Your task to perform on an android device: Search for a nice rug on Crate & Barrel Image 0: 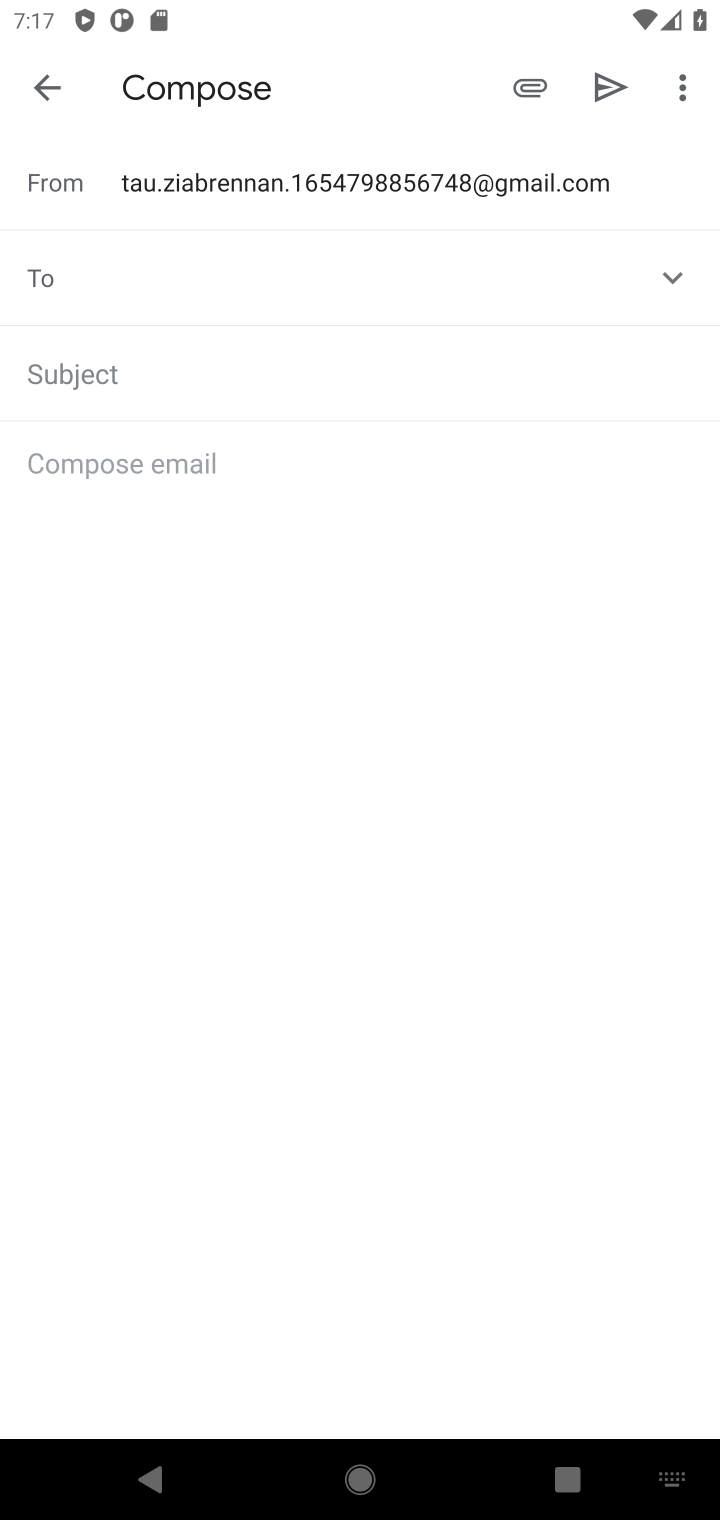
Step 0: press home button
Your task to perform on an android device: Search for a nice rug on Crate & Barrel Image 1: 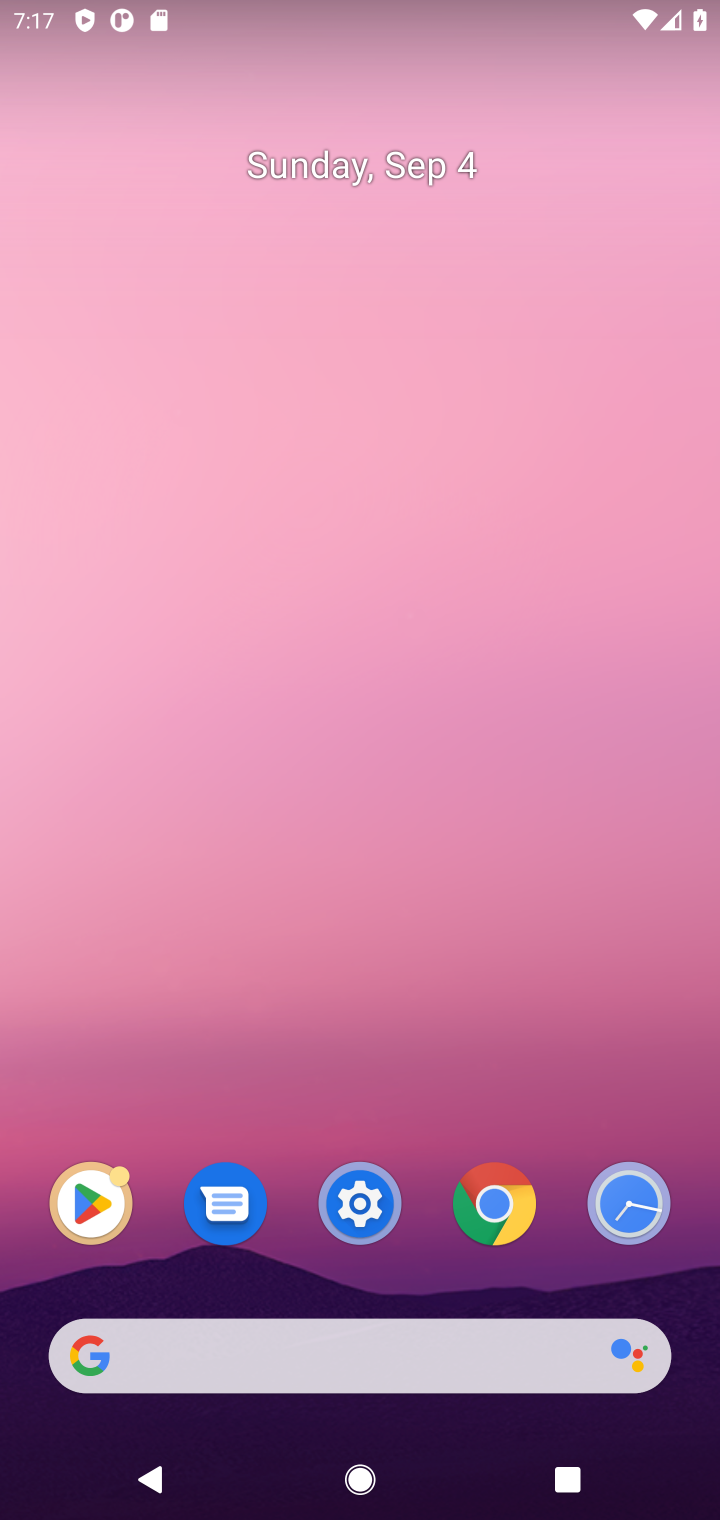
Step 1: click (97, 1348)
Your task to perform on an android device: Search for a nice rug on Crate & Barrel Image 2: 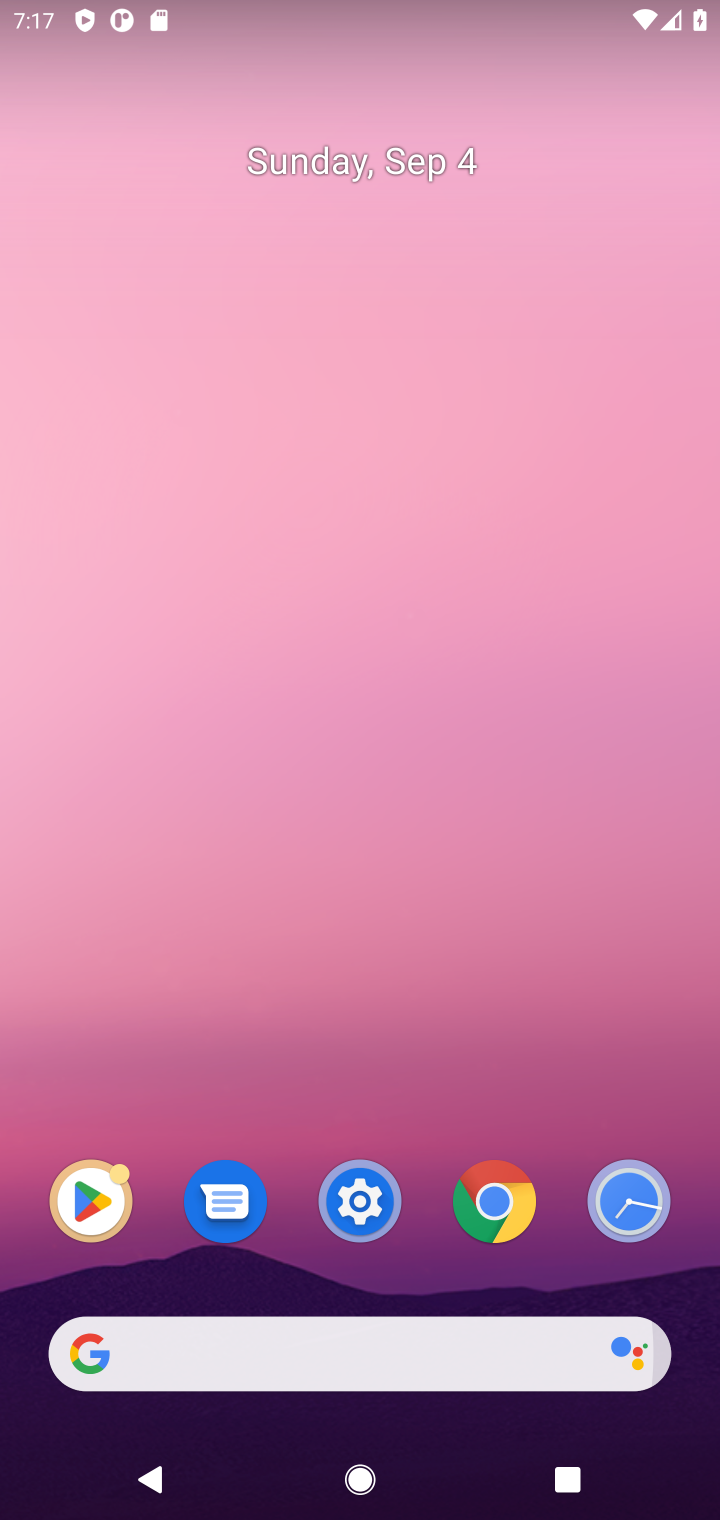
Step 2: click (89, 1357)
Your task to perform on an android device: Search for a nice rug on Crate & Barrel Image 3: 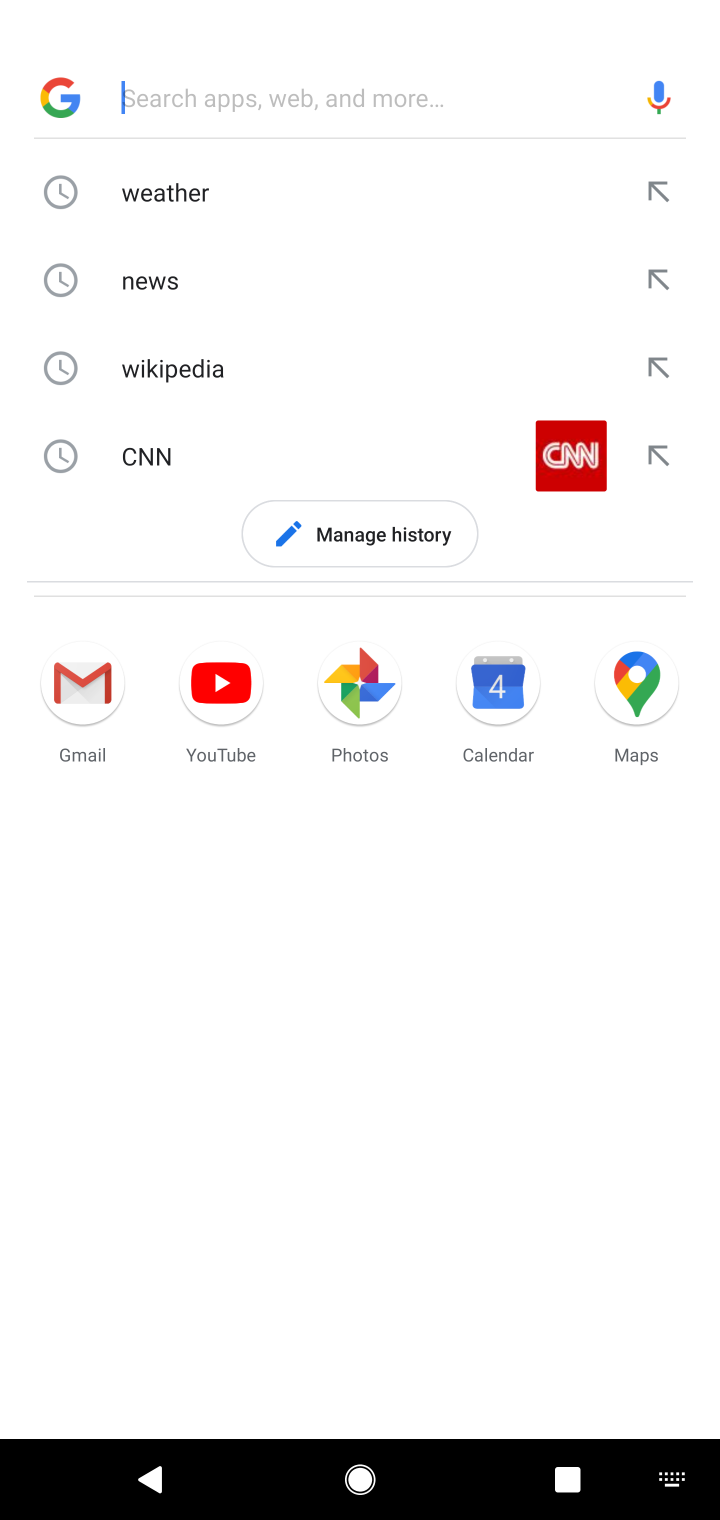
Step 3: type "Crate & Barrel"
Your task to perform on an android device: Search for a nice rug on Crate & Barrel Image 4: 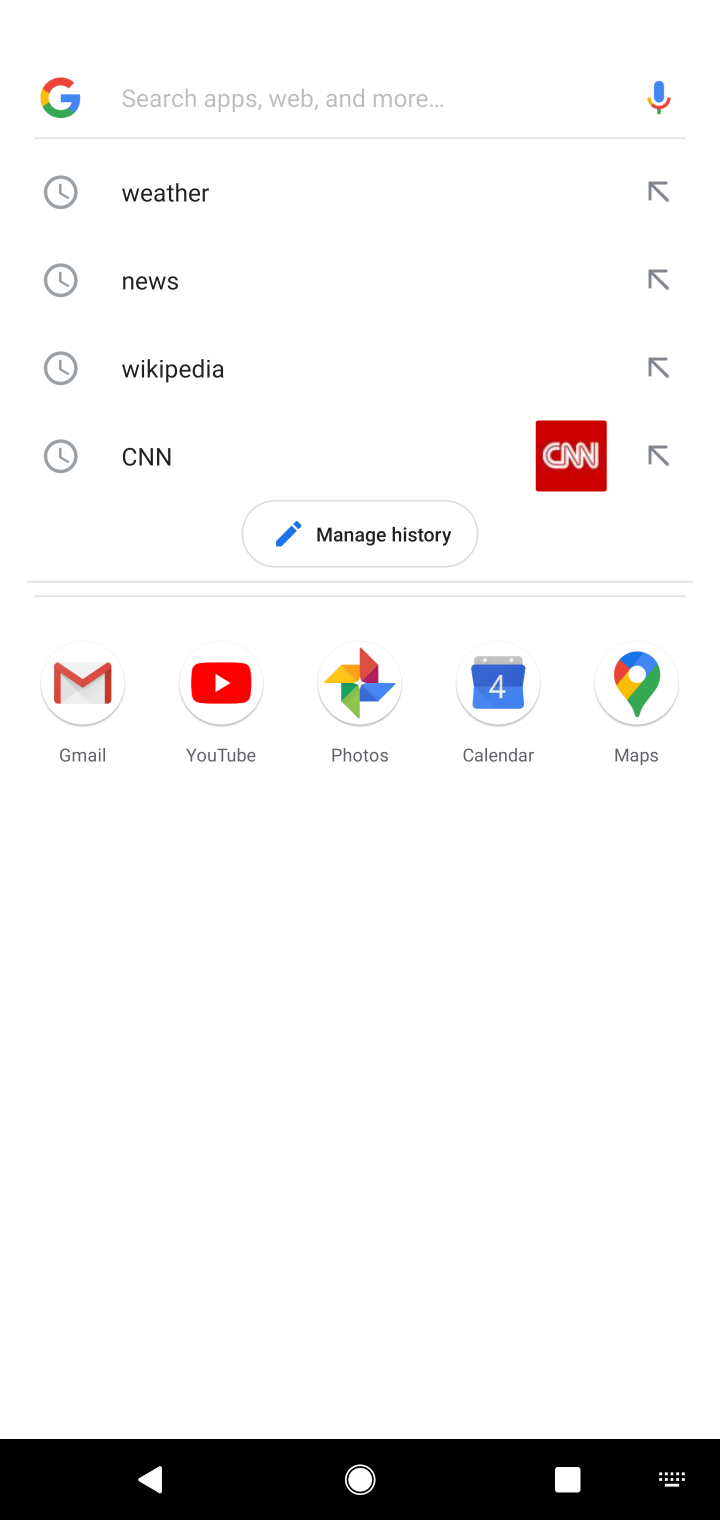
Step 4: click (283, 92)
Your task to perform on an android device: Search for a nice rug on Crate & Barrel Image 5: 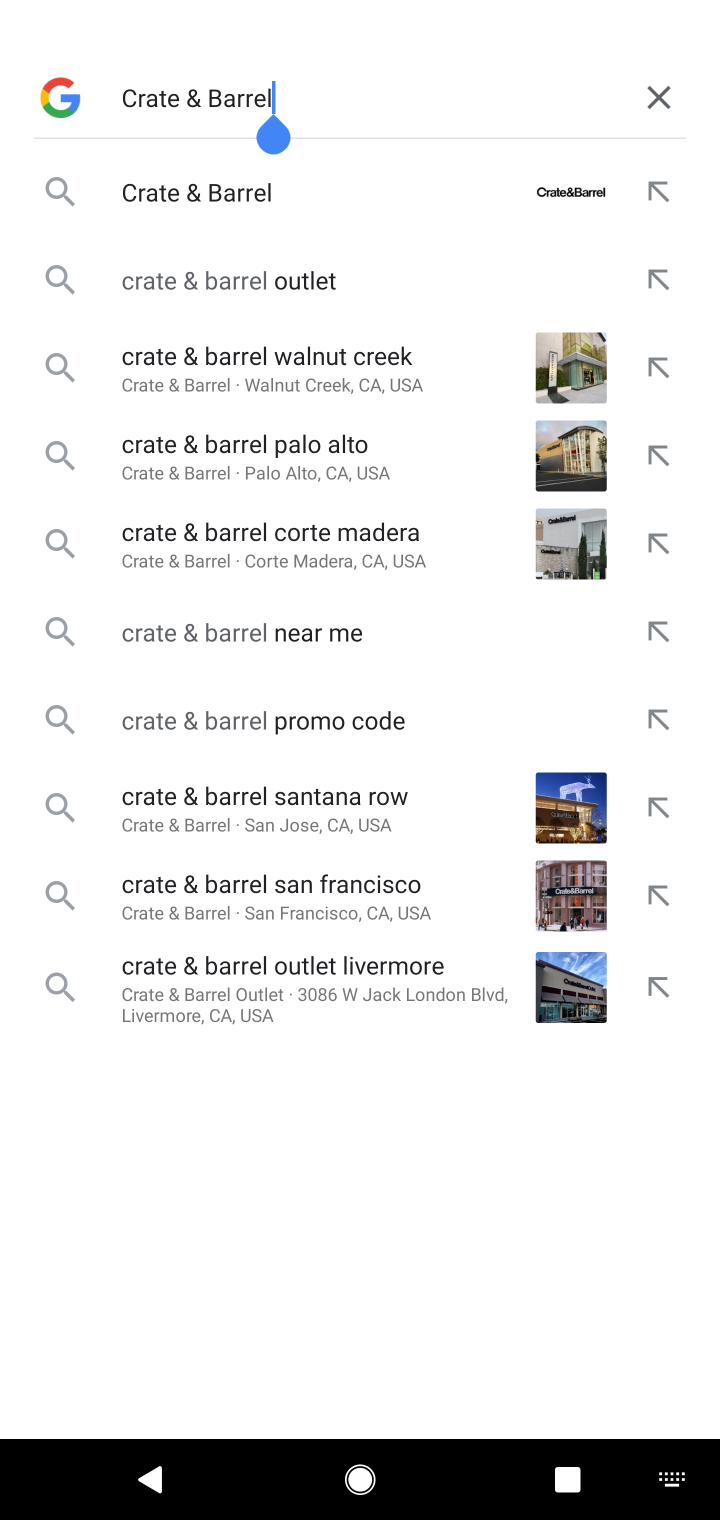
Step 5: press enter
Your task to perform on an android device: Search for a nice rug on Crate & Barrel Image 6: 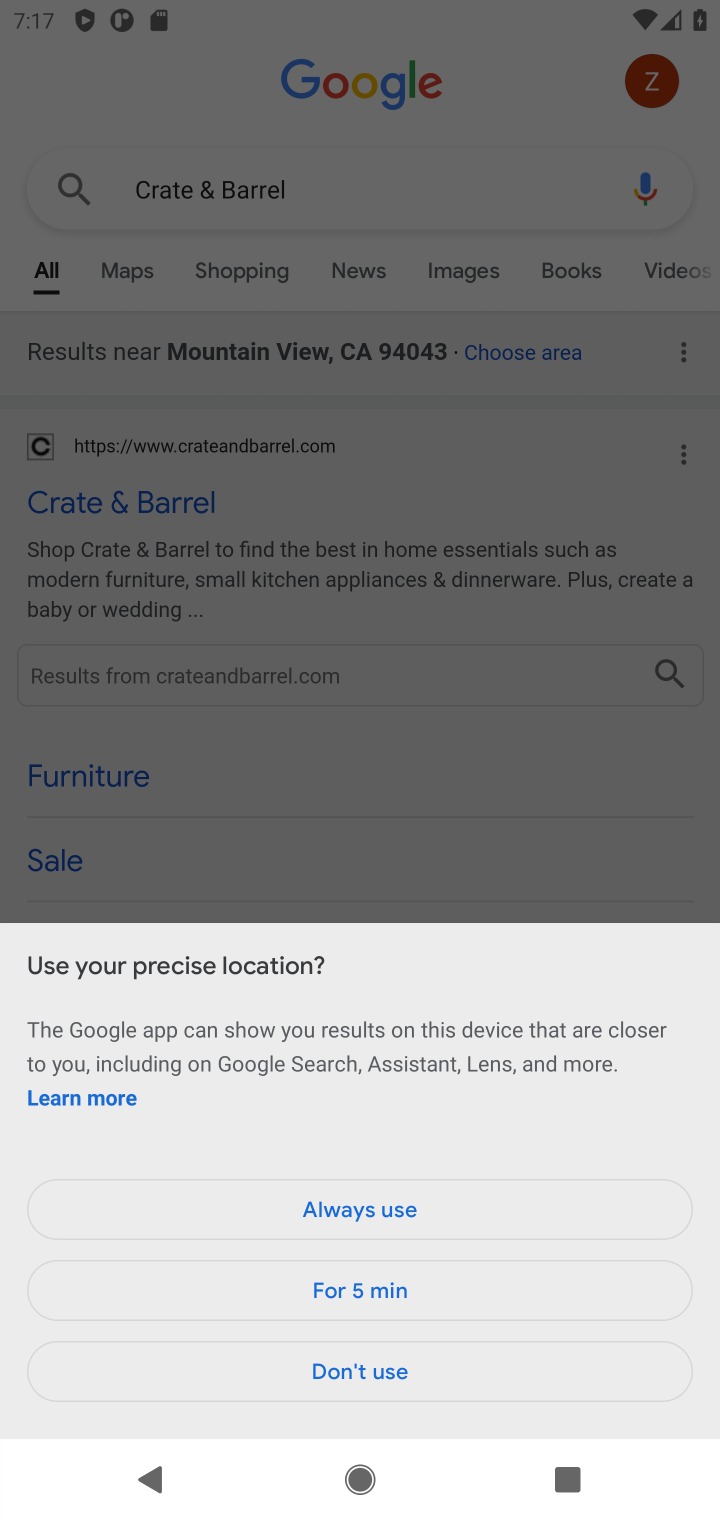
Step 6: click (345, 1201)
Your task to perform on an android device: Search for a nice rug on Crate & Barrel Image 7: 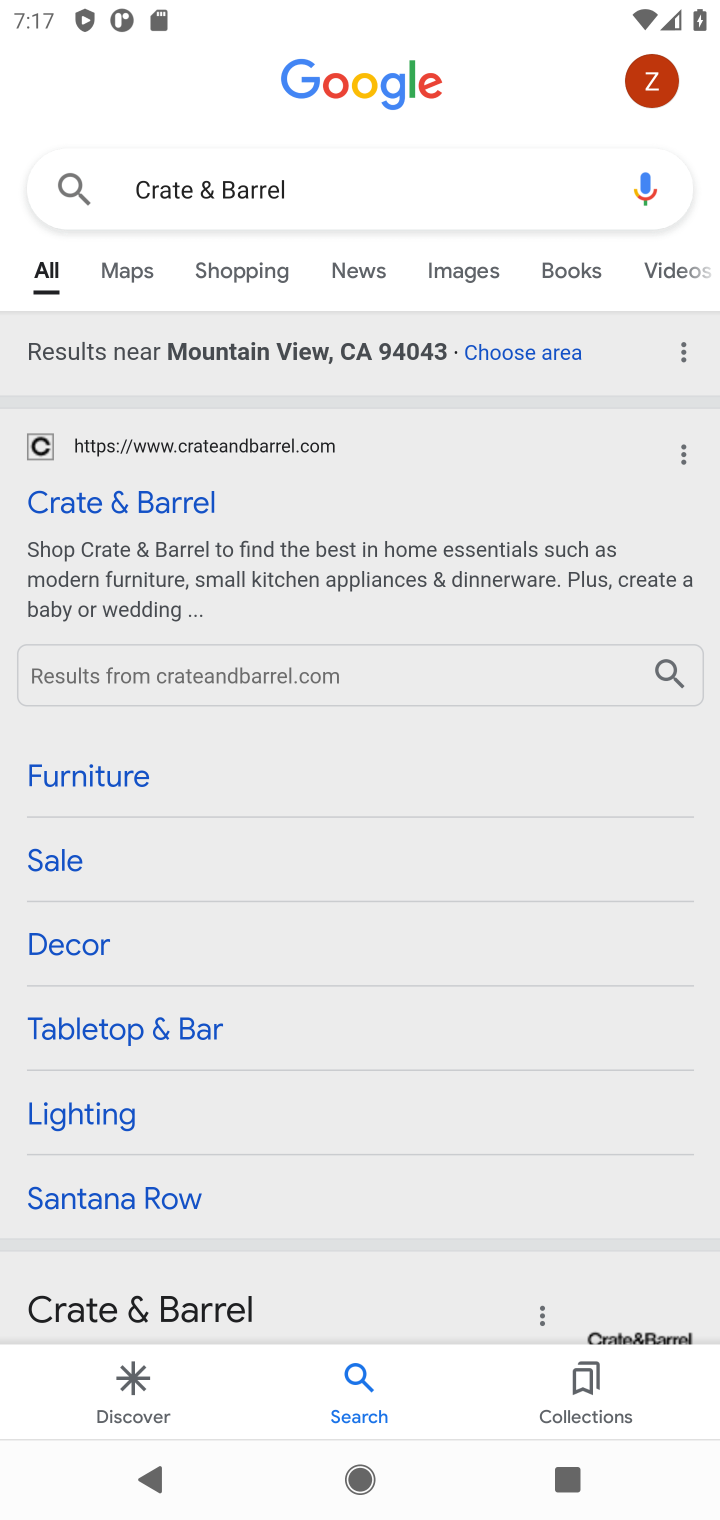
Step 7: click (125, 489)
Your task to perform on an android device: Search for a nice rug on Crate & Barrel Image 8: 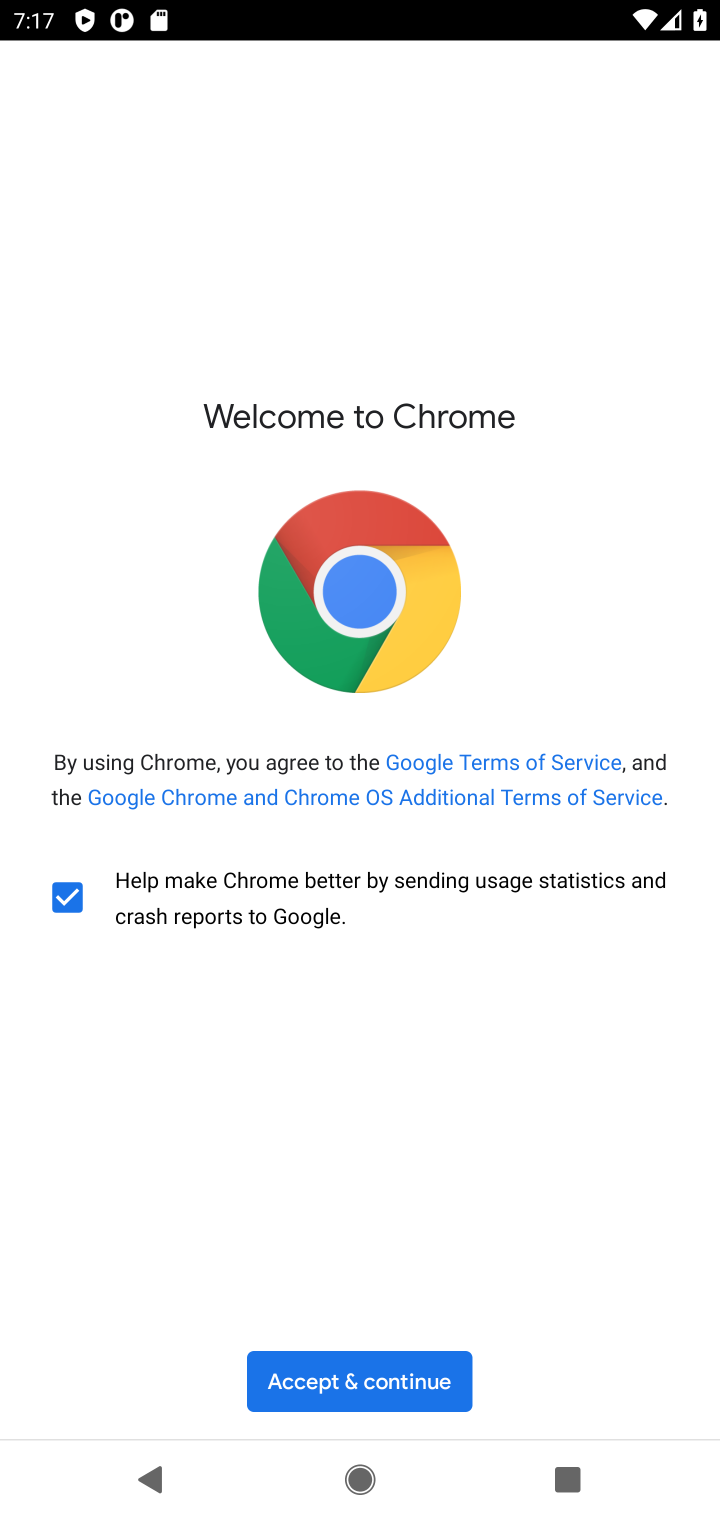
Step 8: click (354, 1389)
Your task to perform on an android device: Search for a nice rug on Crate & Barrel Image 9: 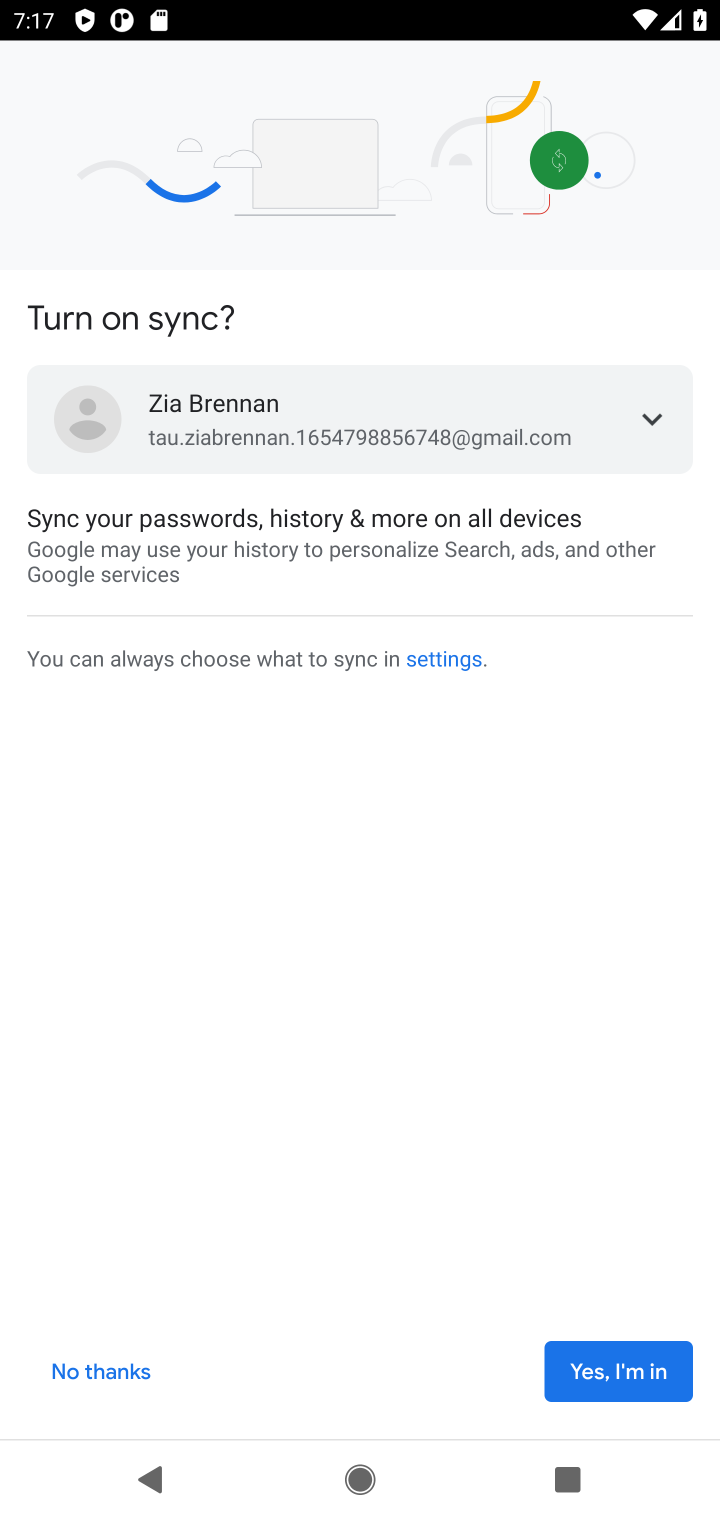
Step 9: click (53, 1370)
Your task to perform on an android device: Search for a nice rug on Crate & Barrel Image 10: 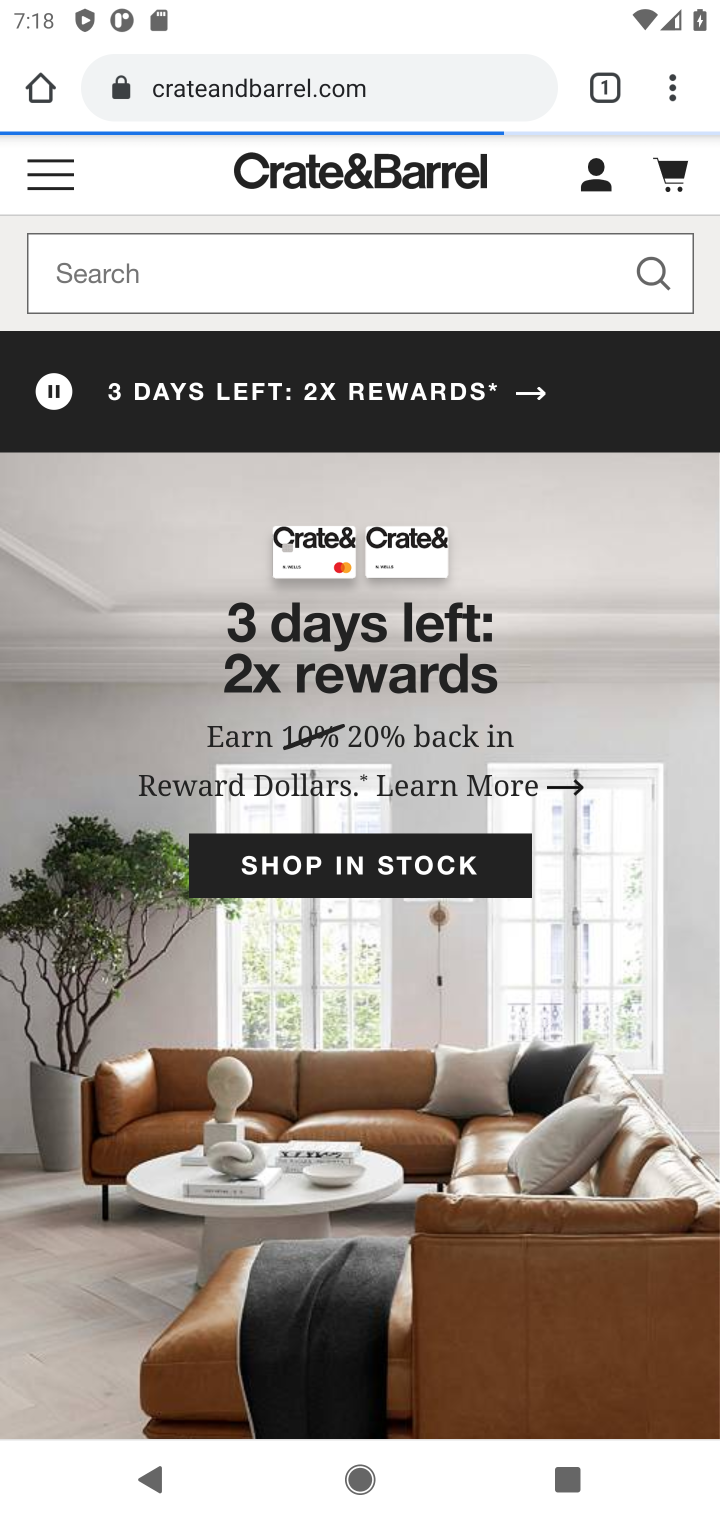
Step 10: click (252, 275)
Your task to perform on an android device: Search for a nice rug on Crate & Barrel Image 11: 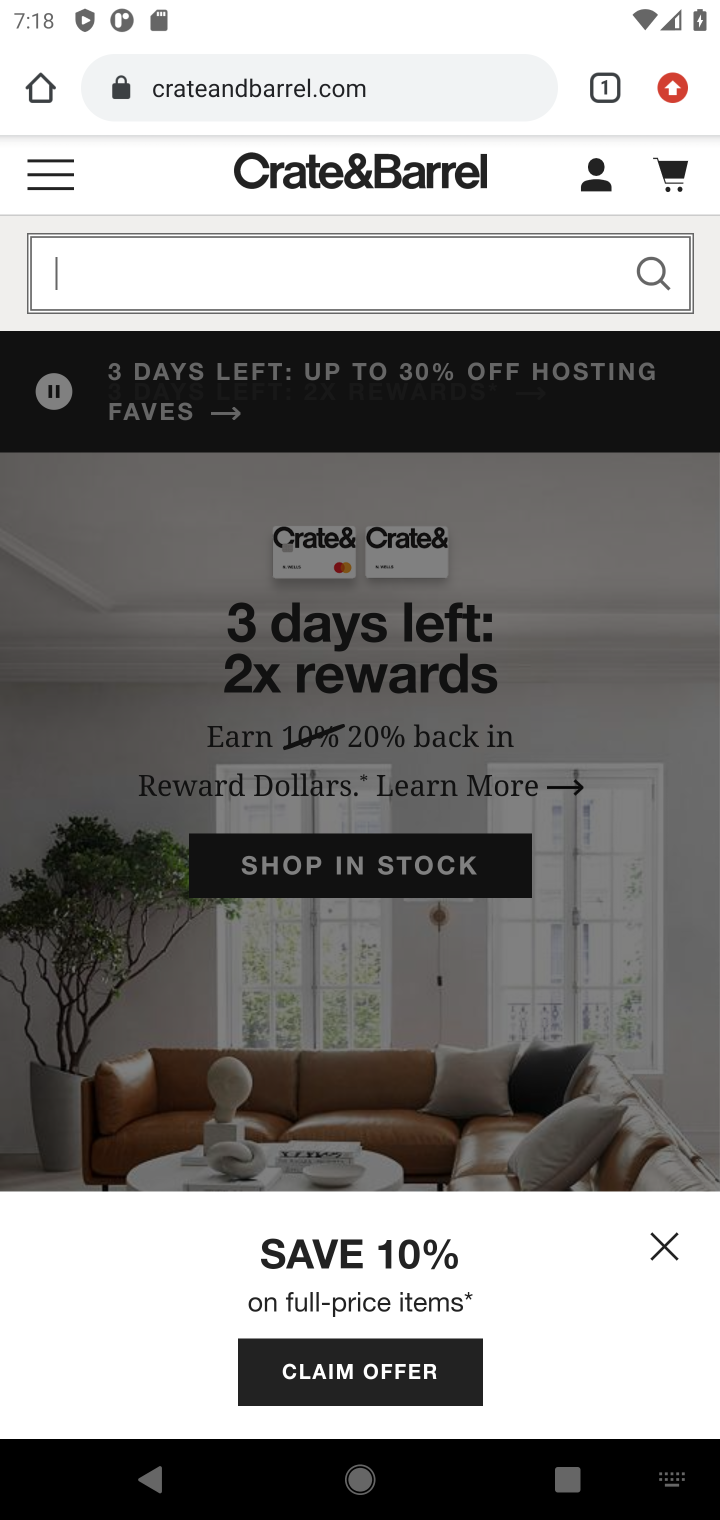
Step 11: type "nice rug "
Your task to perform on an android device: Search for a nice rug on Crate & Barrel Image 12: 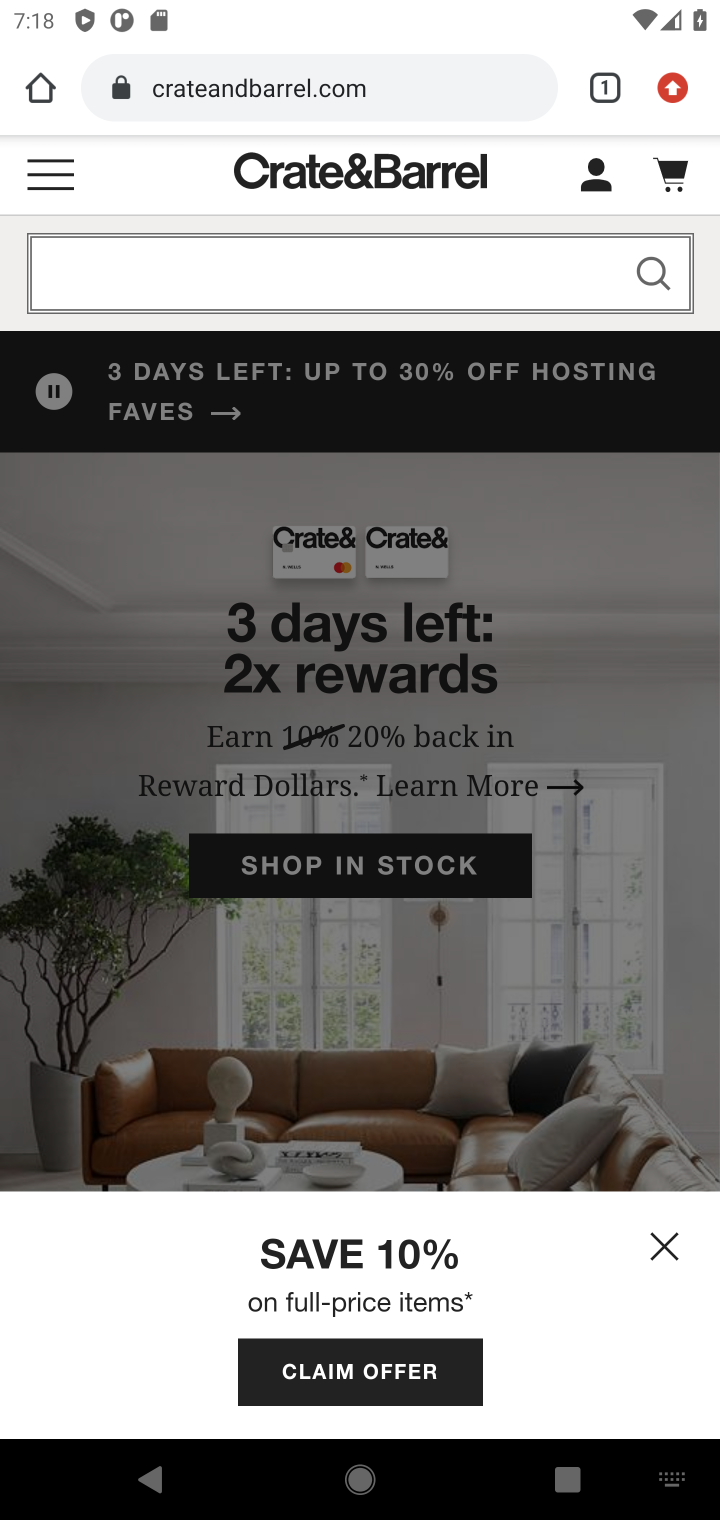
Step 12: click (146, 286)
Your task to perform on an android device: Search for a nice rug on Crate & Barrel Image 13: 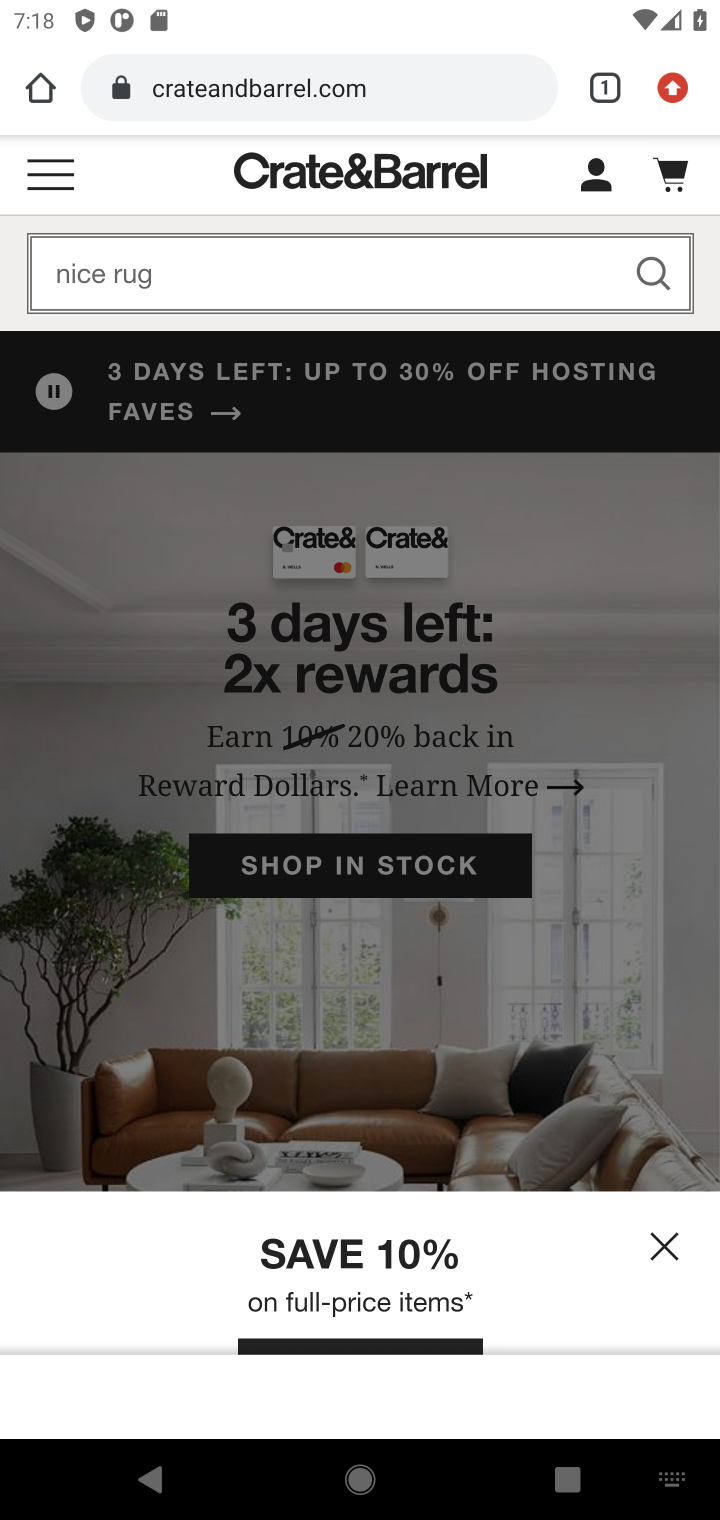
Step 13: click (670, 269)
Your task to perform on an android device: Search for a nice rug on Crate & Barrel Image 14: 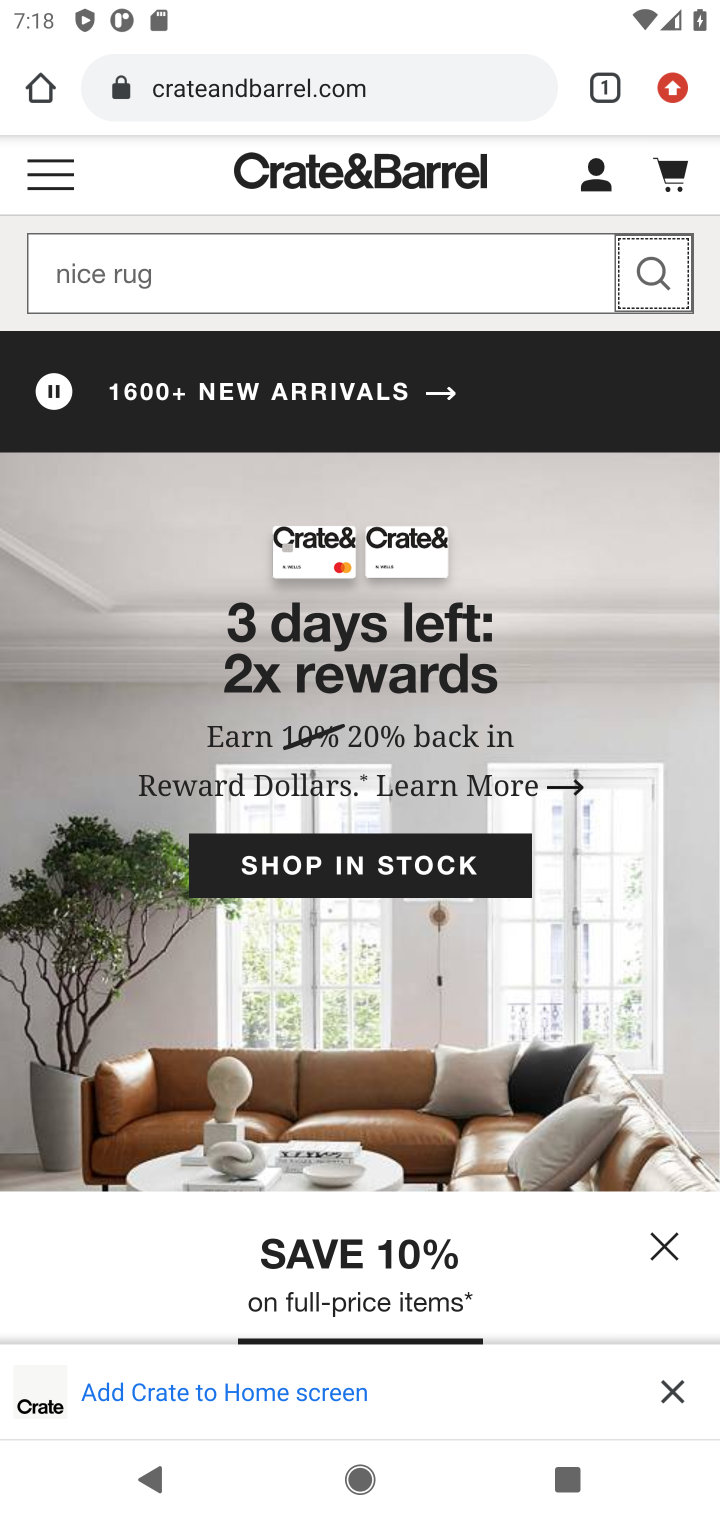
Step 14: click (195, 279)
Your task to perform on an android device: Search for a nice rug on Crate & Barrel Image 15: 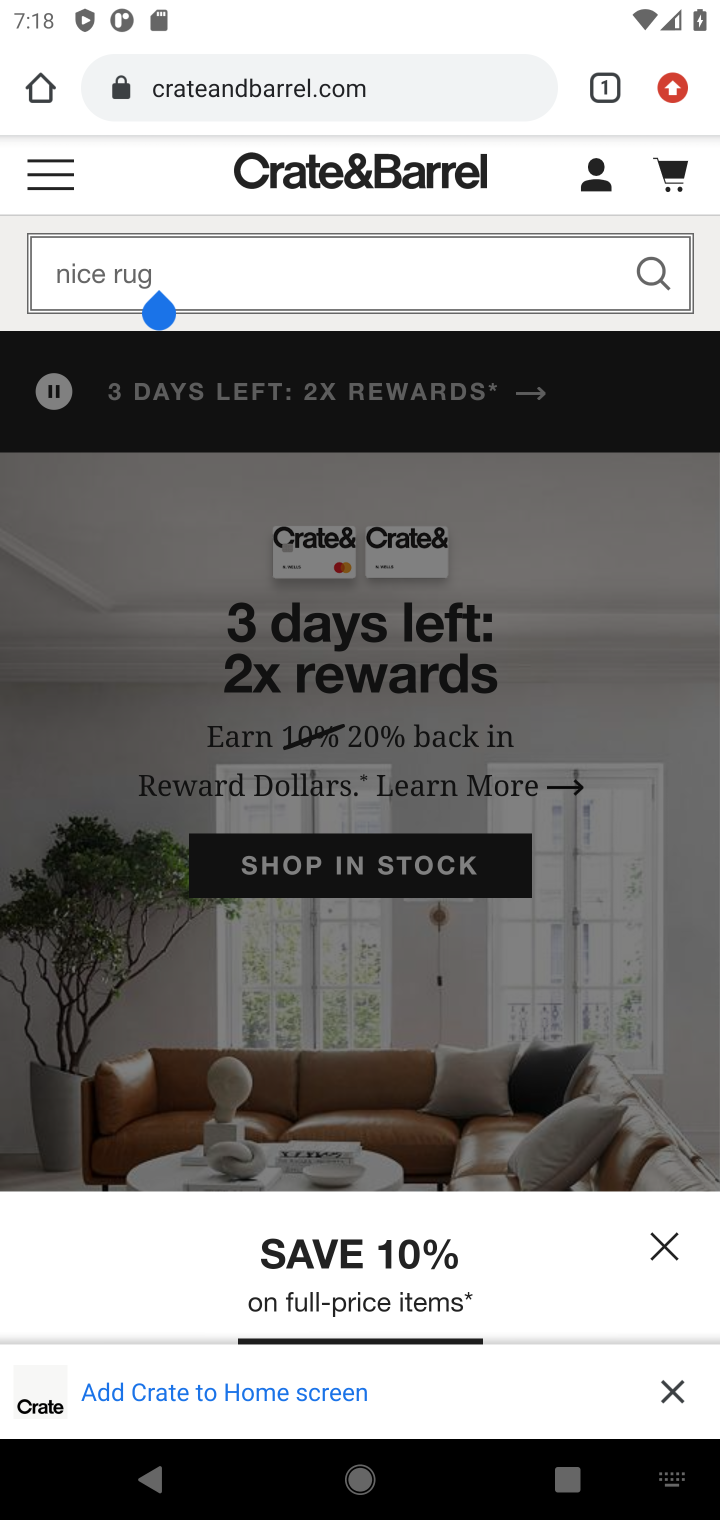
Step 15: click (664, 1237)
Your task to perform on an android device: Search for a nice rug on Crate & Barrel Image 16: 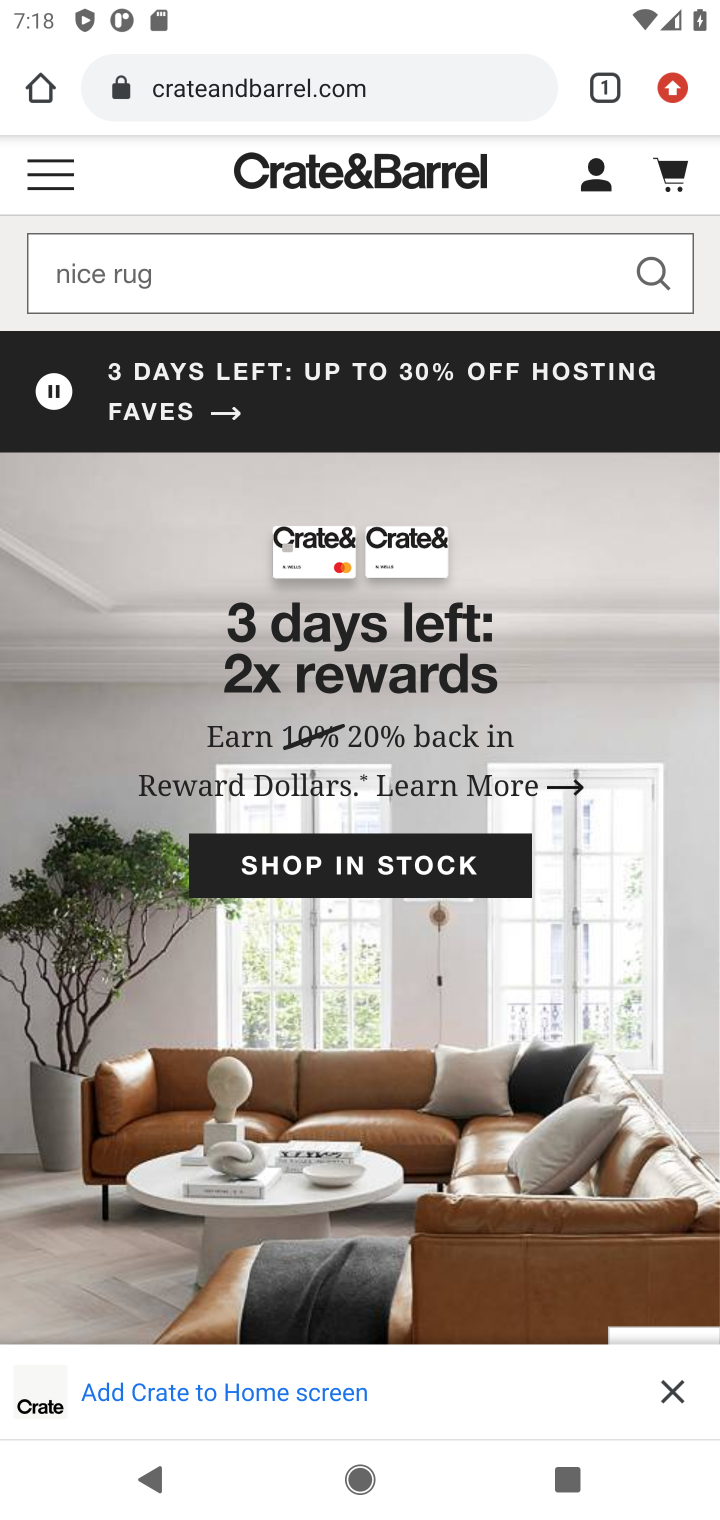
Step 16: click (672, 1399)
Your task to perform on an android device: Search for a nice rug on Crate & Barrel Image 17: 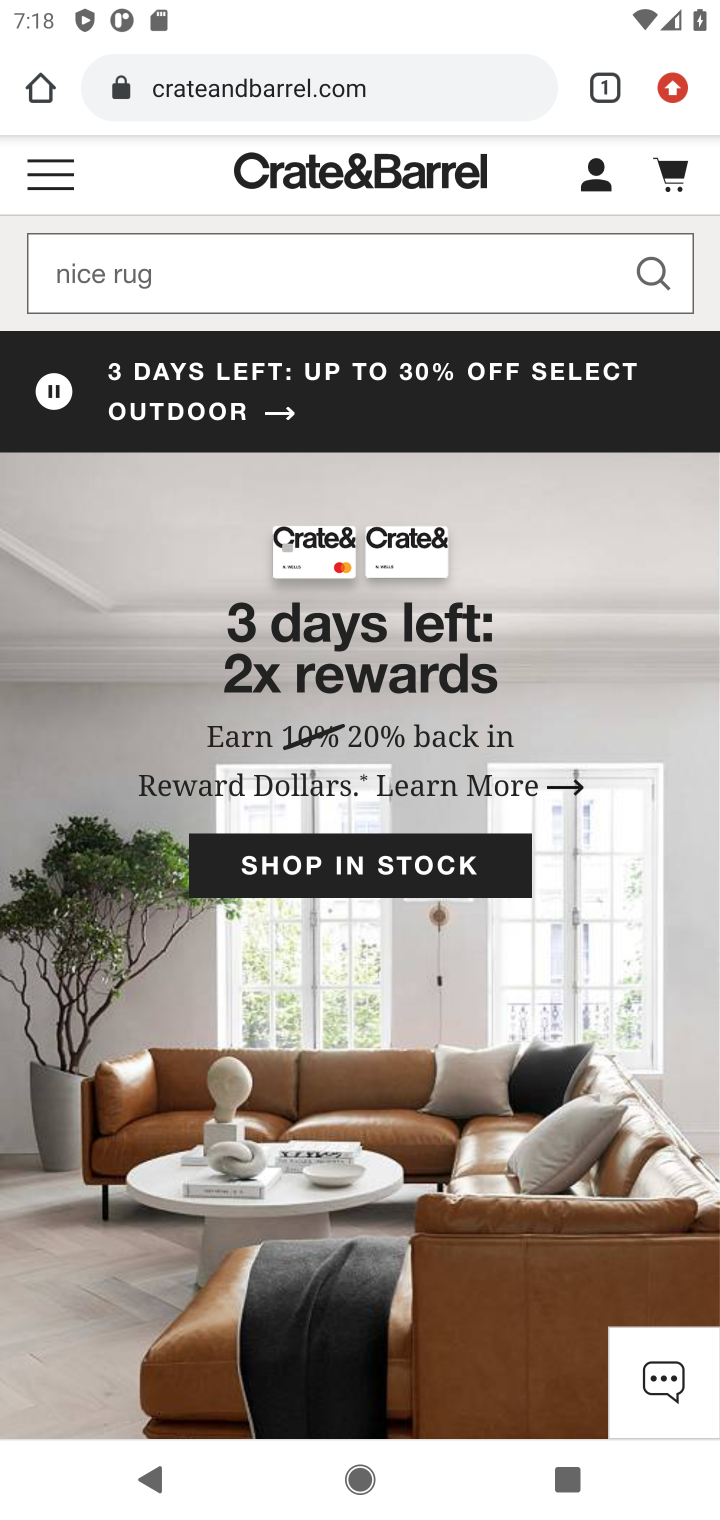
Step 17: click (224, 278)
Your task to perform on an android device: Search for a nice rug on Crate & Barrel Image 18: 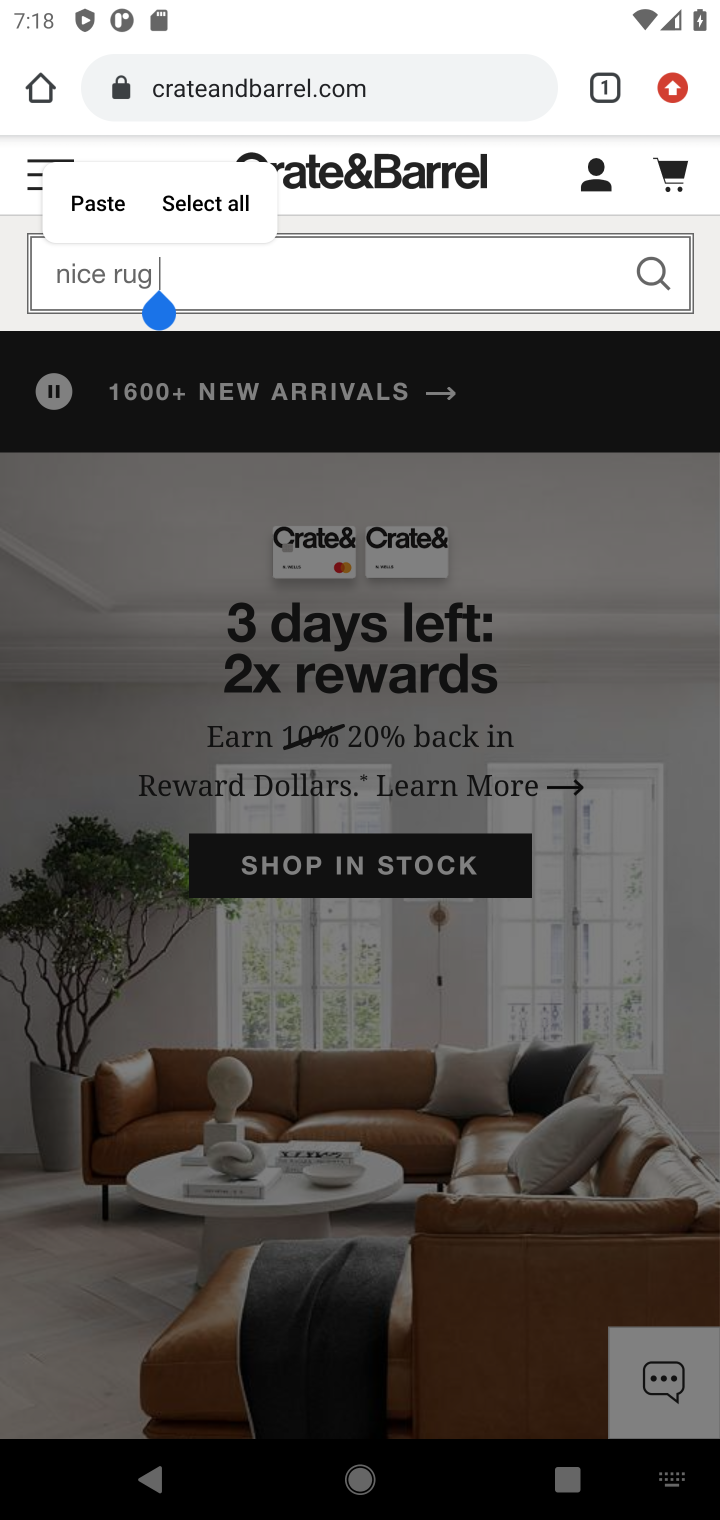
Step 18: press enter
Your task to perform on an android device: Search for a nice rug on Crate & Barrel Image 19: 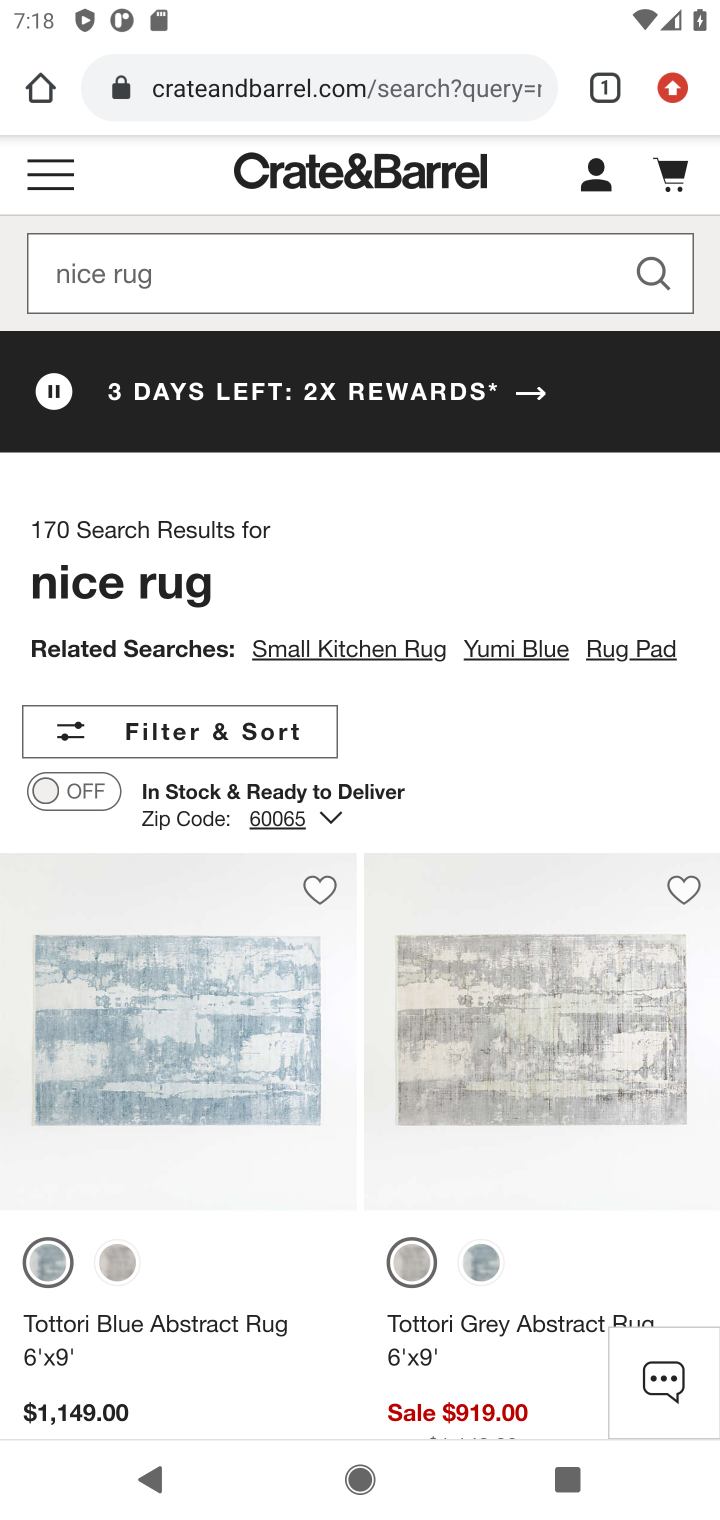
Step 19: drag from (409, 1144) to (484, 526)
Your task to perform on an android device: Search for a nice rug on Crate & Barrel Image 20: 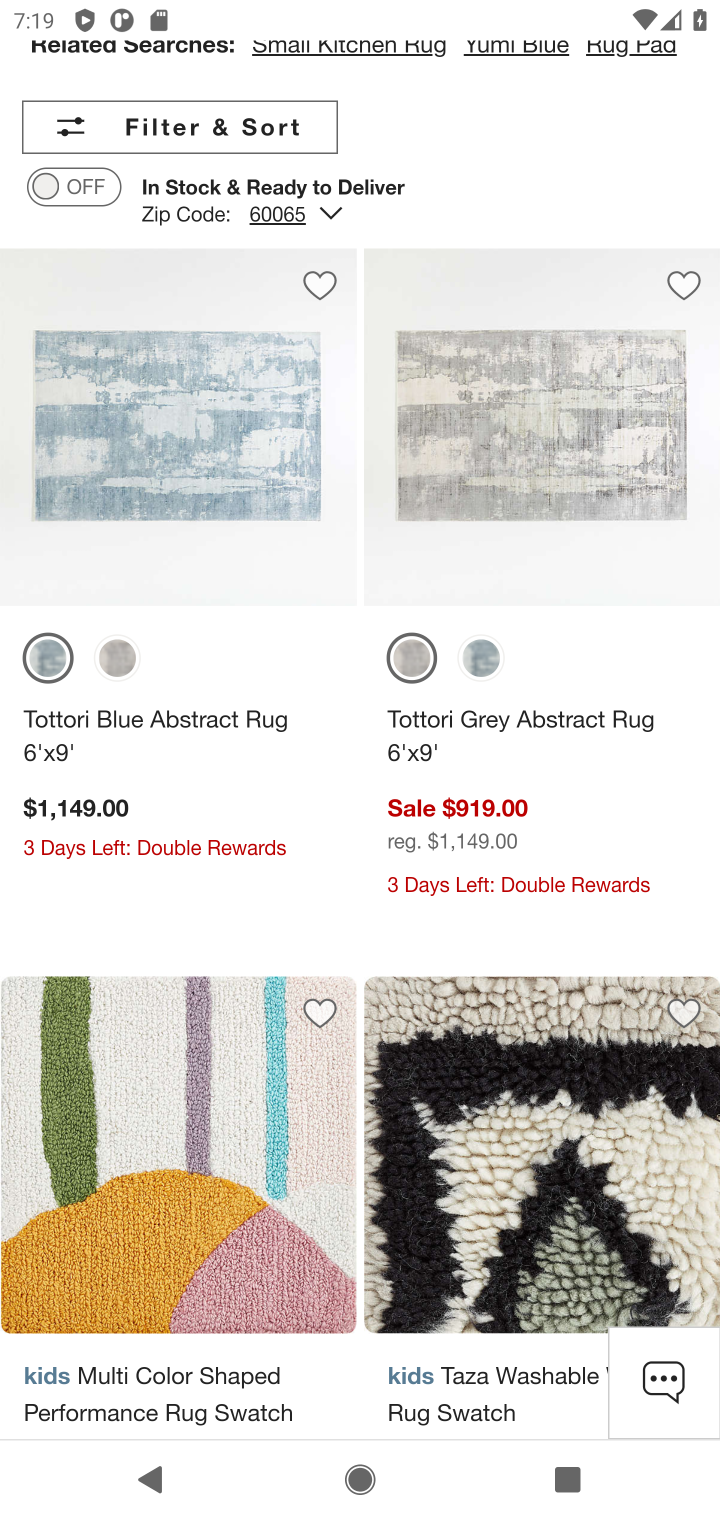
Step 20: click (420, 449)
Your task to perform on an android device: Search for a nice rug on Crate & Barrel Image 21: 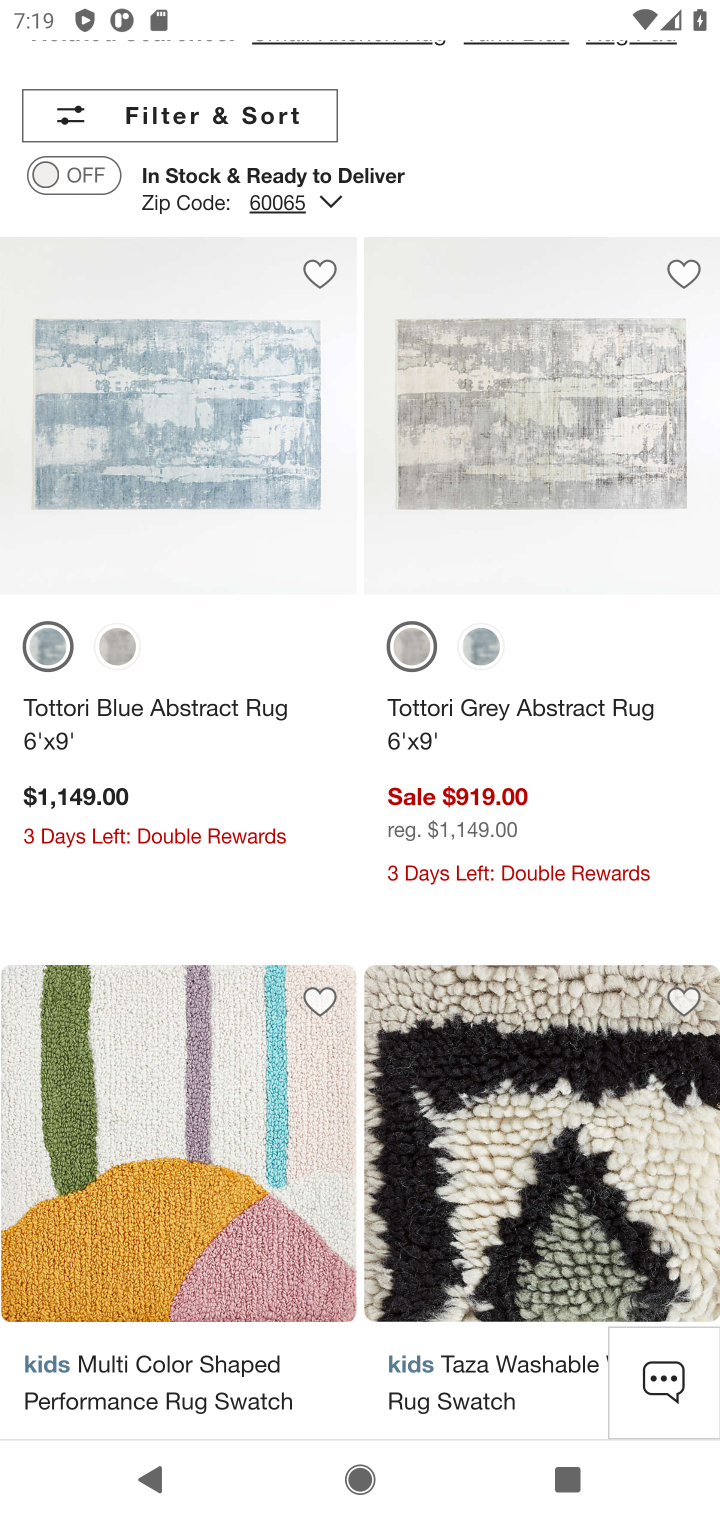
Step 21: task complete